Your task to perform on an android device: turn smart compose on in the gmail app Image 0: 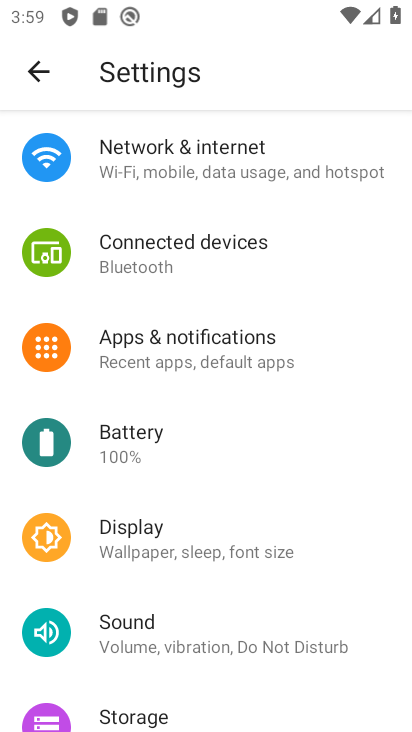
Step 0: press home button
Your task to perform on an android device: turn smart compose on in the gmail app Image 1: 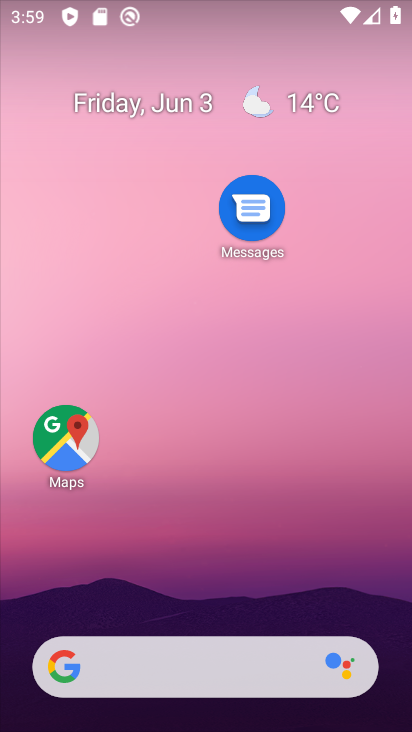
Step 1: drag from (234, 584) to (233, 161)
Your task to perform on an android device: turn smart compose on in the gmail app Image 2: 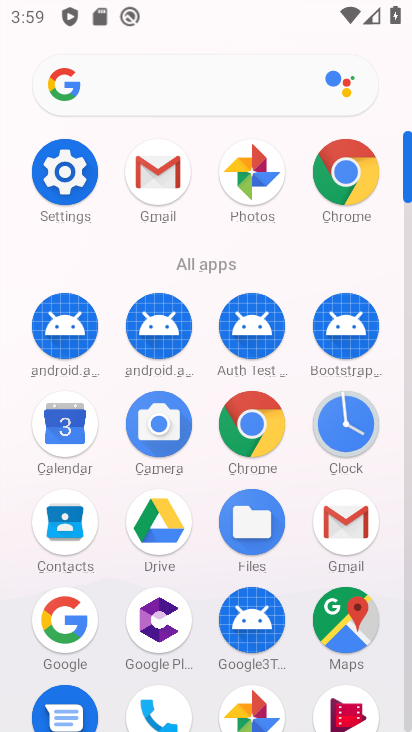
Step 2: click (151, 169)
Your task to perform on an android device: turn smart compose on in the gmail app Image 3: 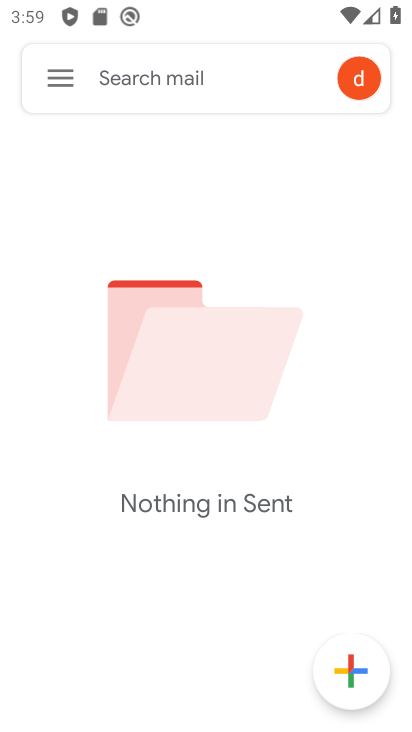
Step 3: click (66, 82)
Your task to perform on an android device: turn smart compose on in the gmail app Image 4: 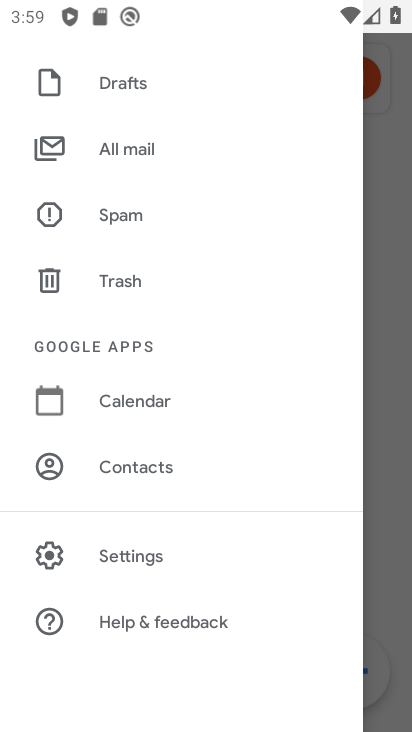
Step 4: click (116, 558)
Your task to perform on an android device: turn smart compose on in the gmail app Image 5: 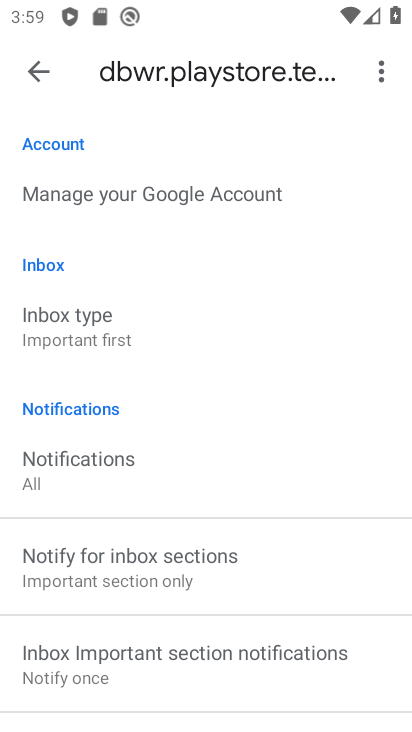
Step 5: task complete